Your task to perform on an android device: open app "Duolingo: language lessons" (install if not already installed) Image 0: 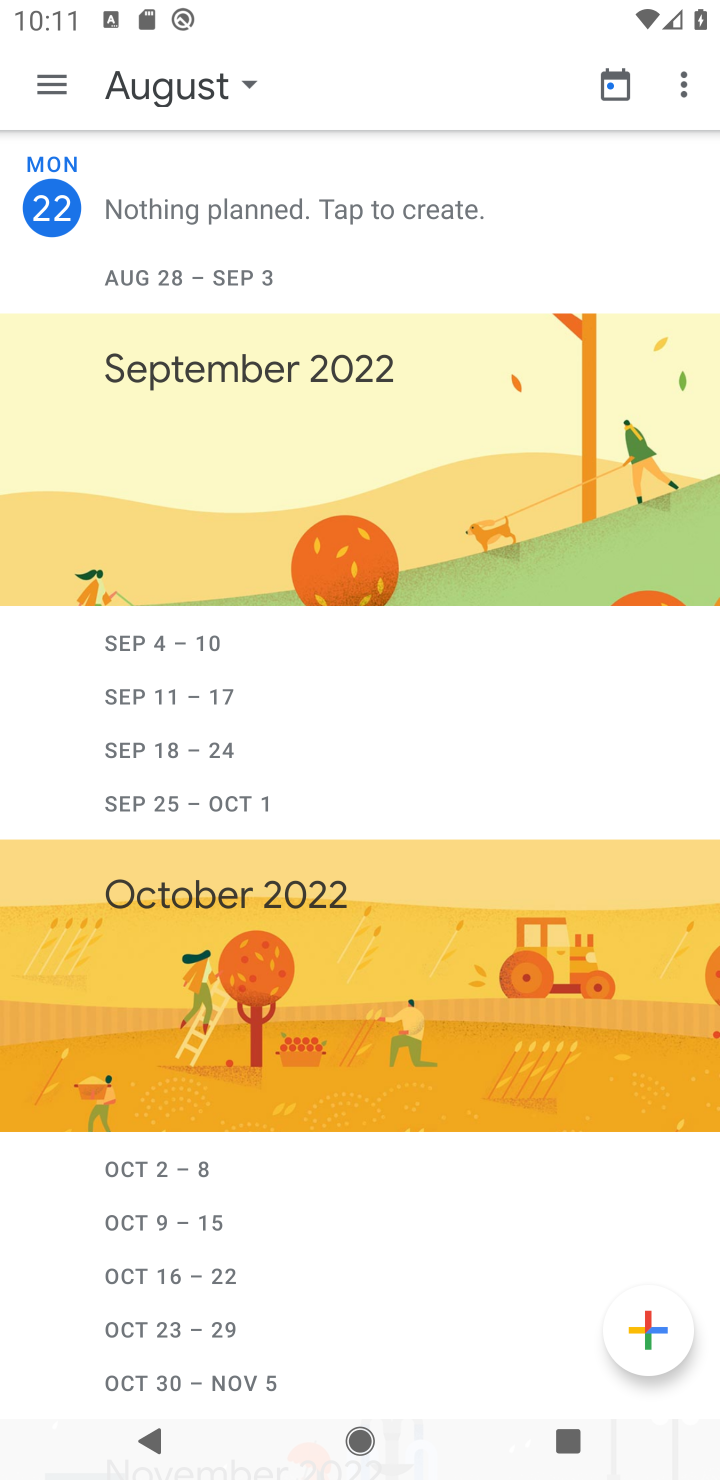
Step 0: press back button
Your task to perform on an android device: open app "Duolingo: language lessons" (install if not already installed) Image 1: 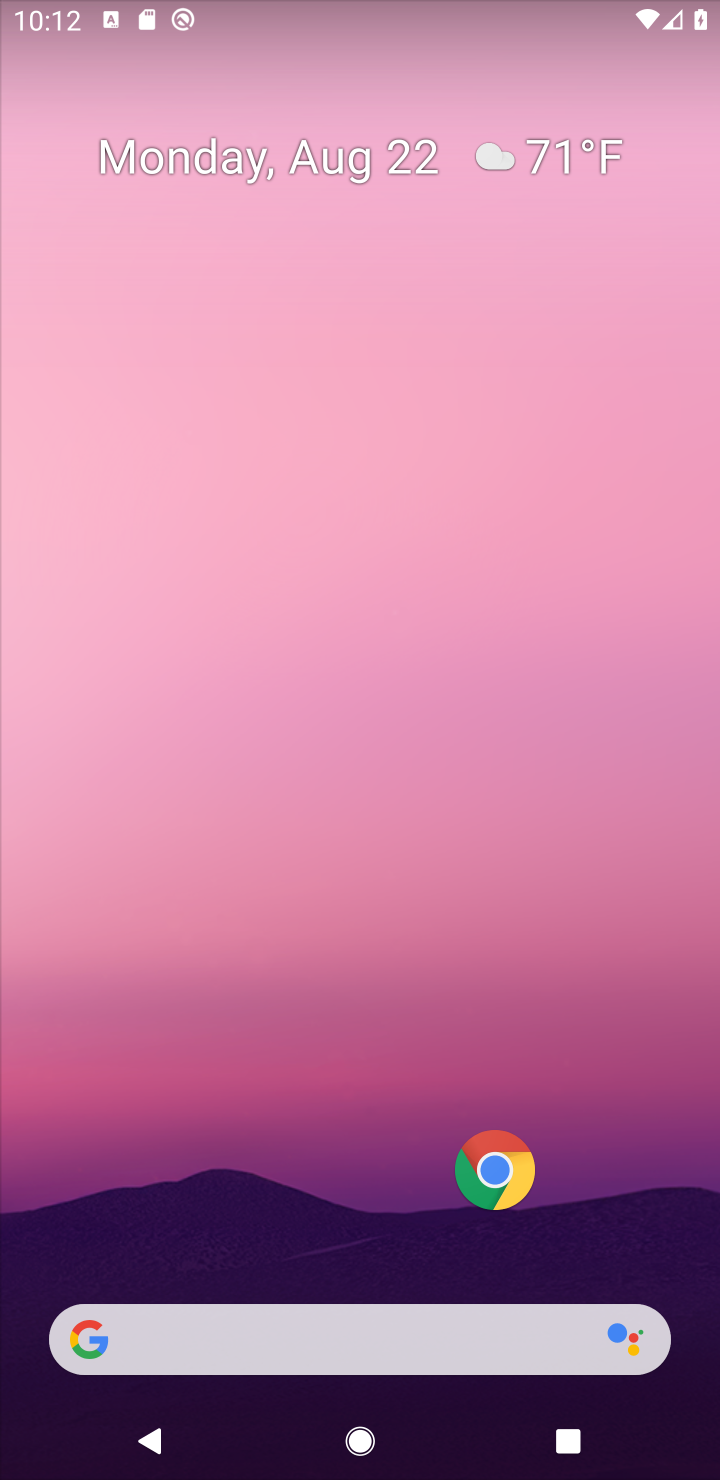
Step 1: drag from (319, 1056) to (513, 188)
Your task to perform on an android device: open app "Duolingo: language lessons" (install if not already installed) Image 2: 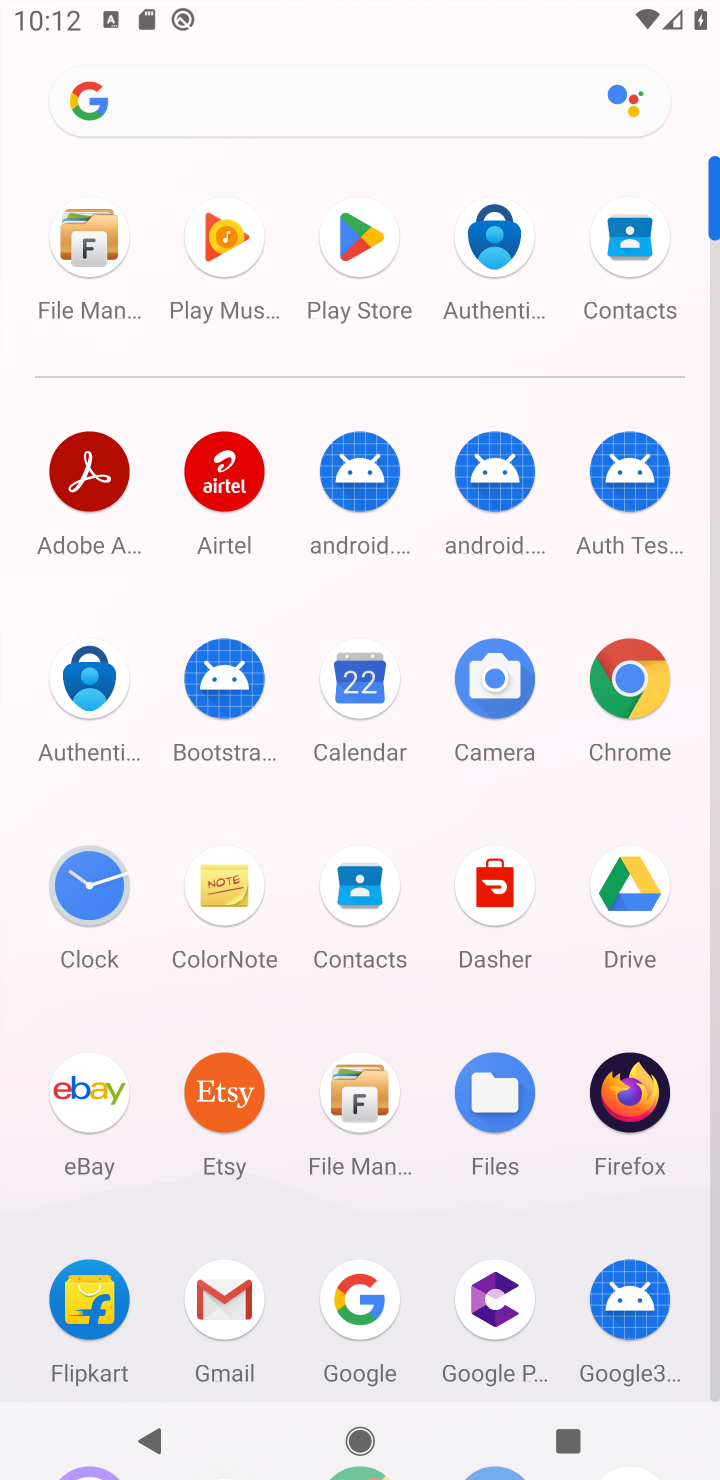
Step 2: click (357, 229)
Your task to perform on an android device: open app "Duolingo: language lessons" (install if not already installed) Image 3: 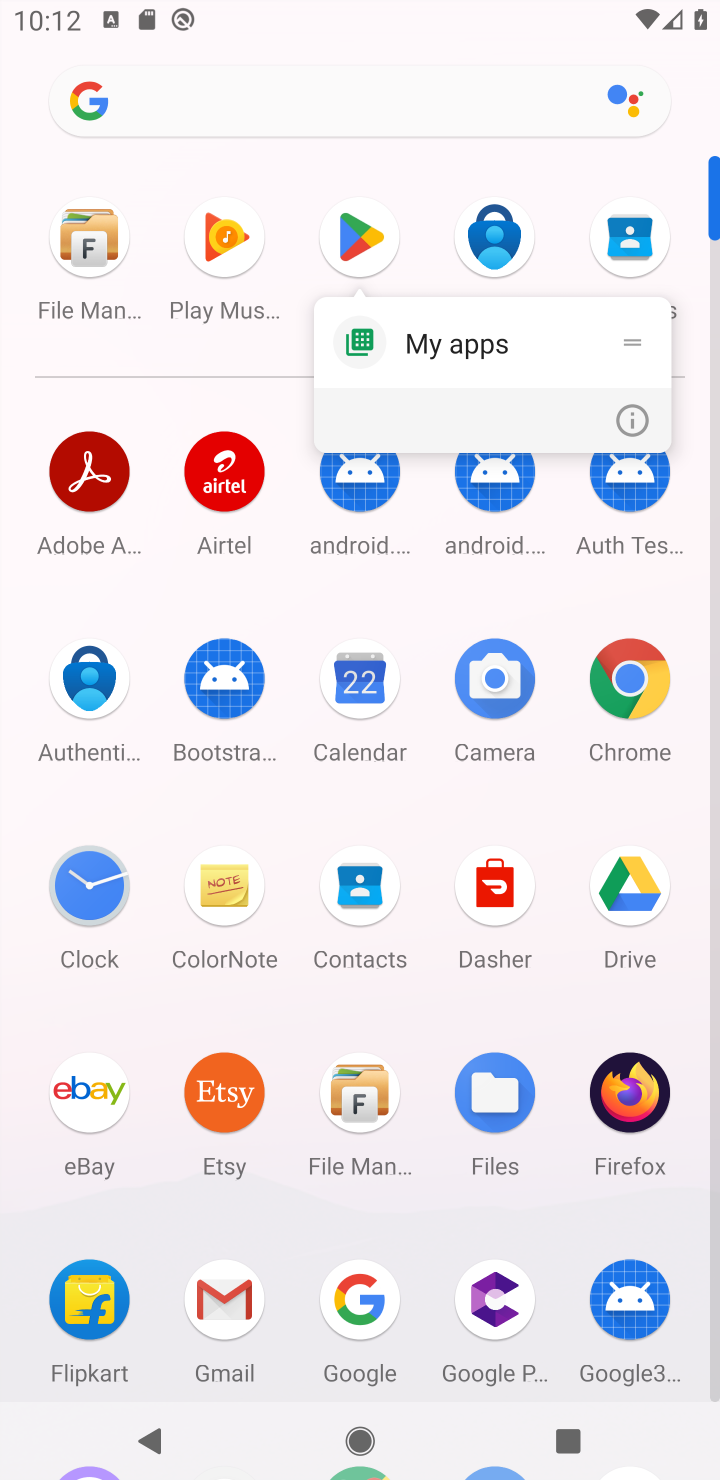
Step 3: click (373, 250)
Your task to perform on an android device: open app "Duolingo: language lessons" (install if not already installed) Image 4: 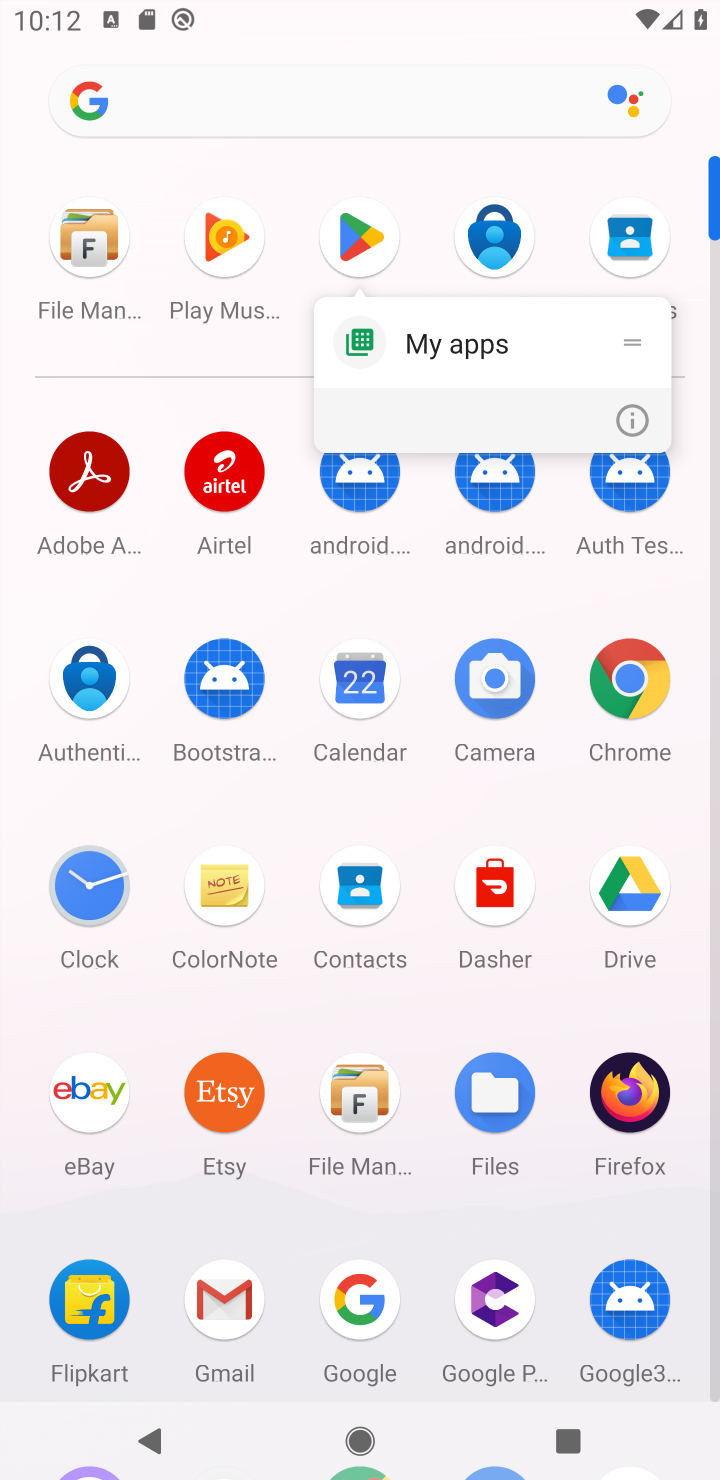
Step 4: click (379, 219)
Your task to perform on an android device: open app "Duolingo: language lessons" (install if not already installed) Image 5: 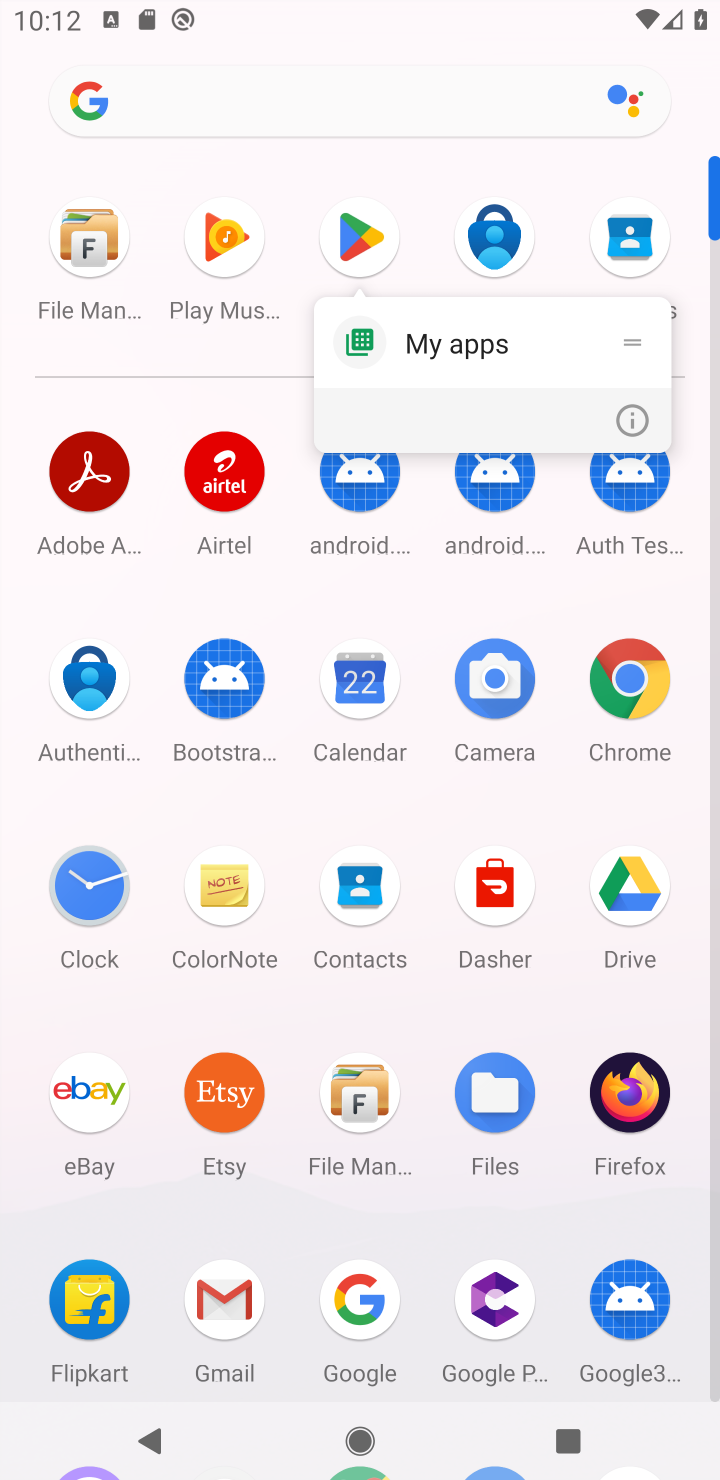
Step 5: click (375, 236)
Your task to perform on an android device: open app "Duolingo: language lessons" (install if not already installed) Image 6: 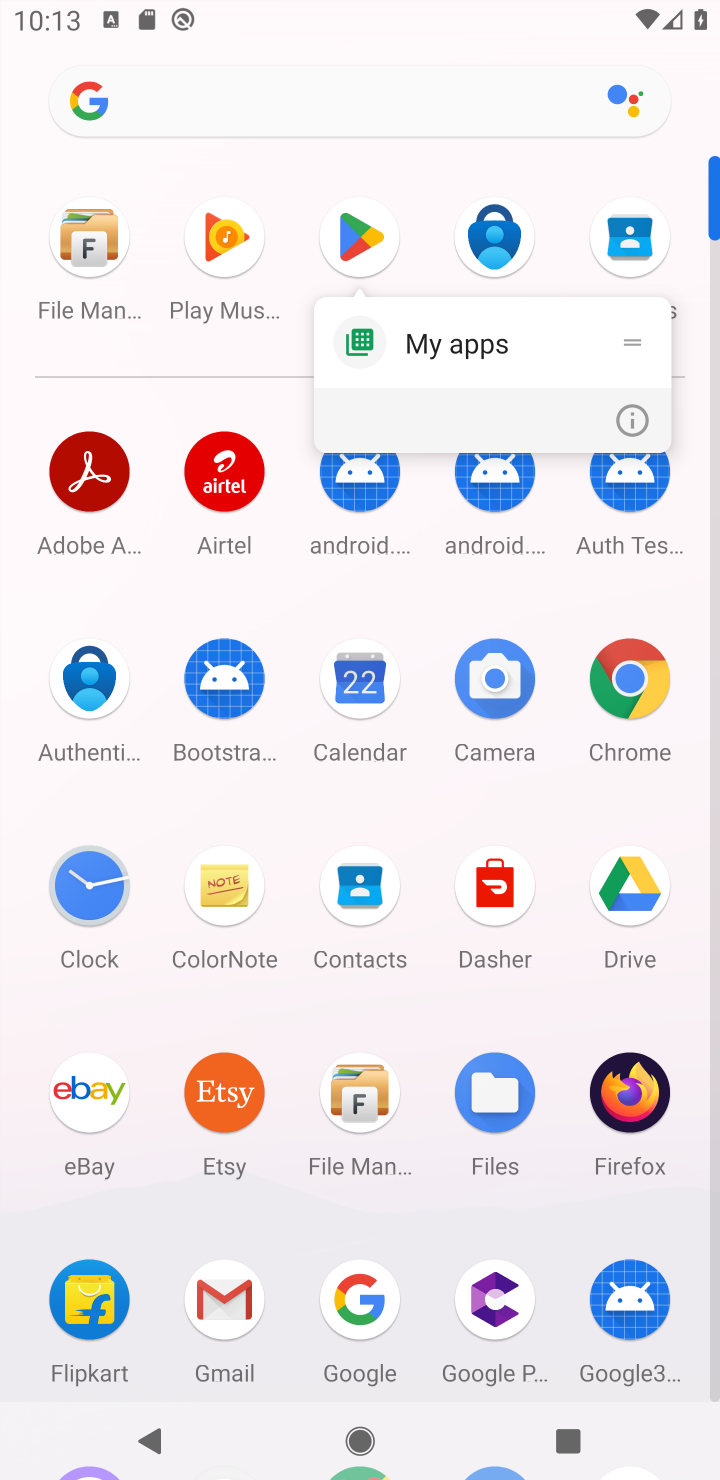
Step 6: click (386, 235)
Your task to perform on an android device: open app "Duolingo: language lessons" (install if not already installed) Image 7: 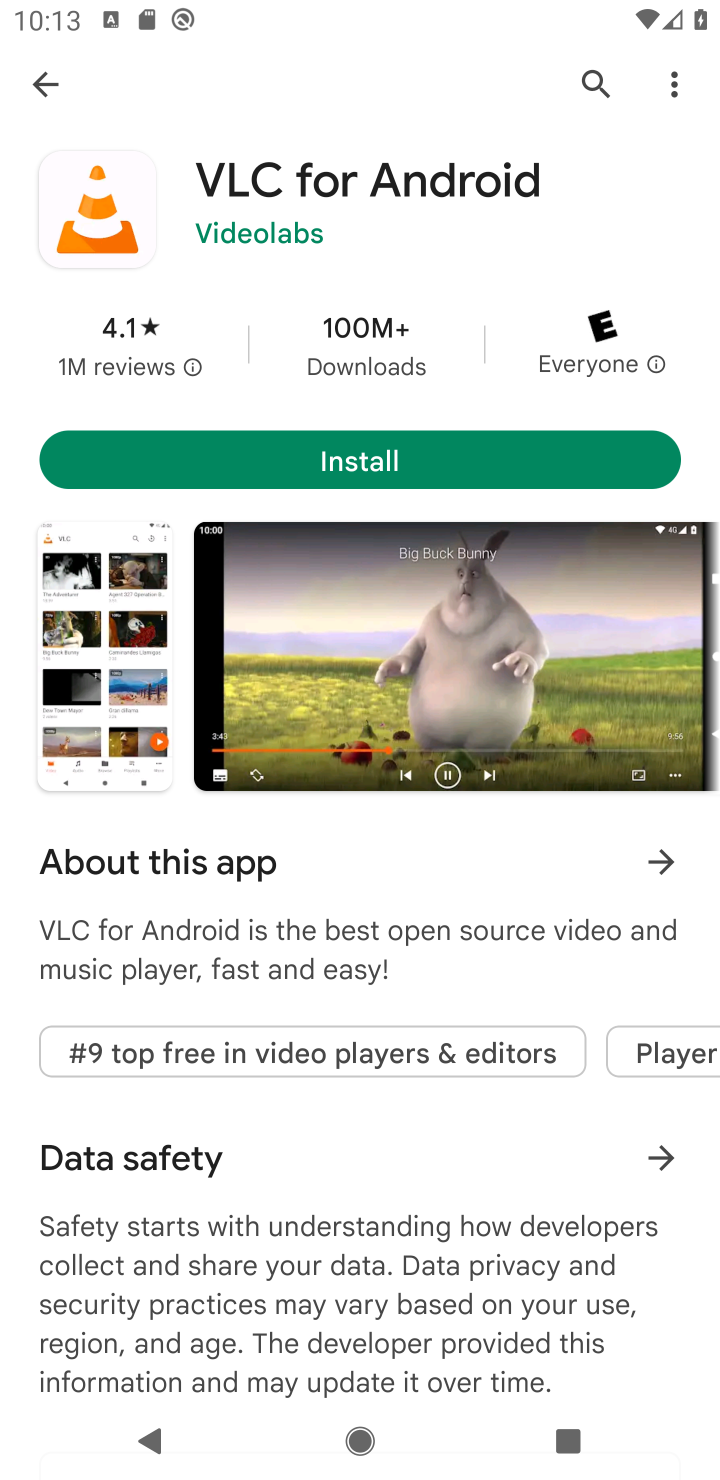
Step 7: click (596, 83)
Your task to perform on an android device: open app "Duolingo: language lessons" (install if not already installed) Image 8: 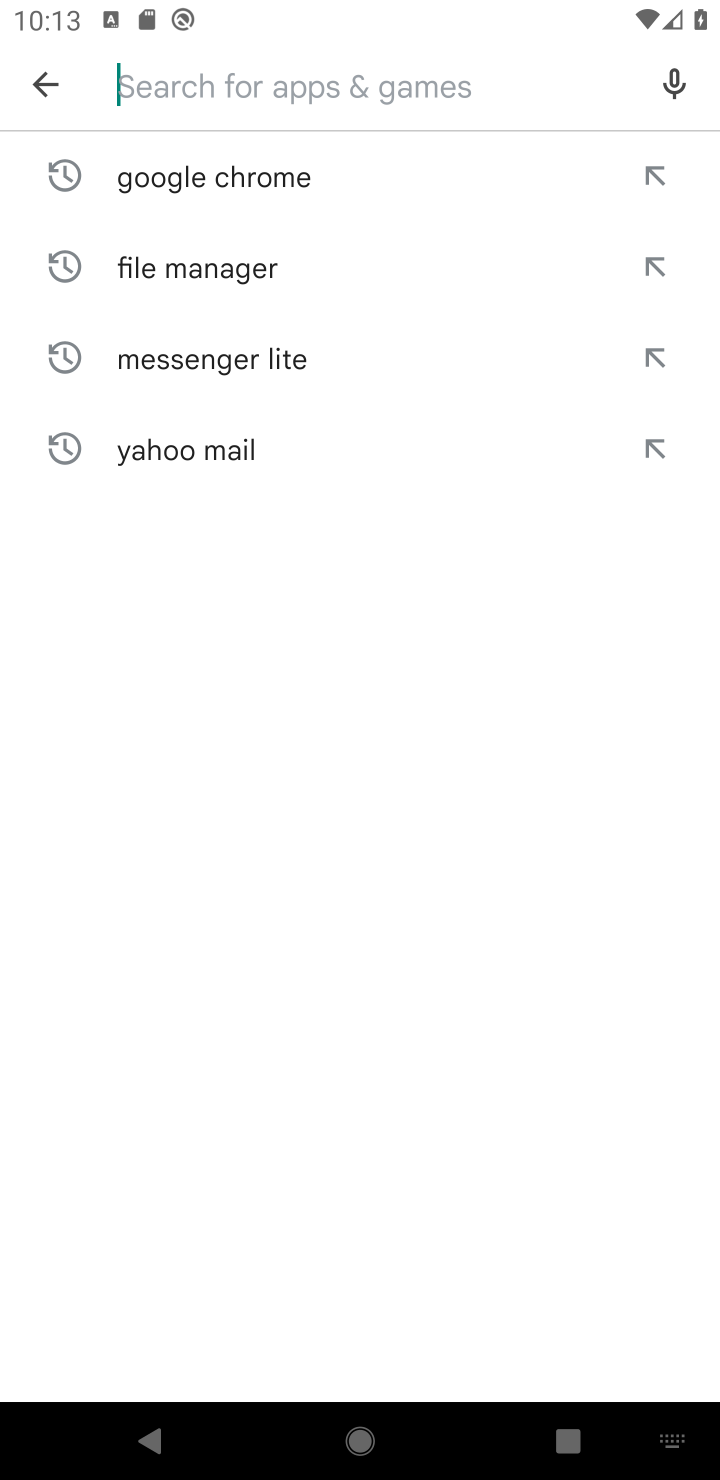
Step 8: click (176, 82)
Your task to perform on an android device: open app "Duolingo: language lessons" (install if not already installed) Image 9: 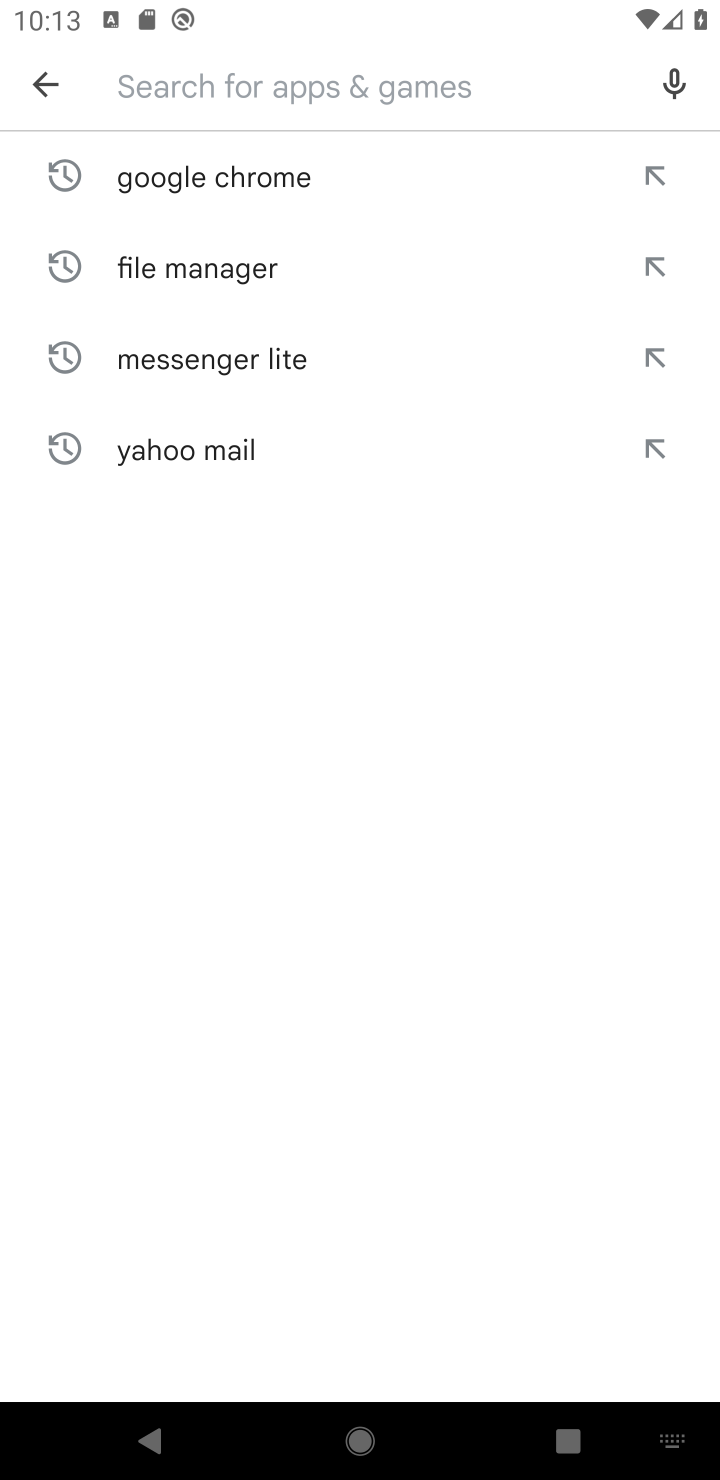
Step 9: type "Duolingo: language lessons"
Your task to perform on an android device: open app "Duolingo: language lessons" (install if not already installed) Image 10: 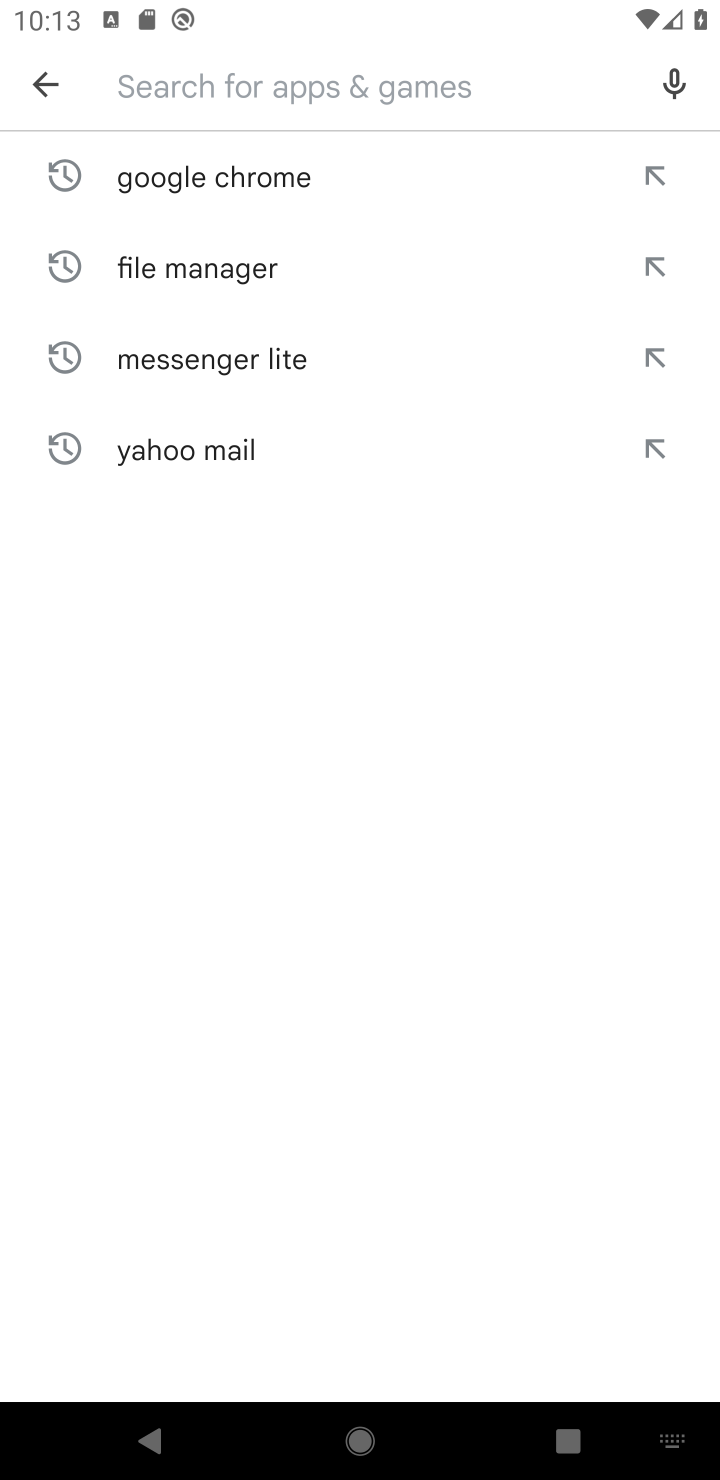
Step 10: click (201, 911)
Your task to perform on an android device: open app "Duolingo: language lessons" (install if not already installed) Image 11: 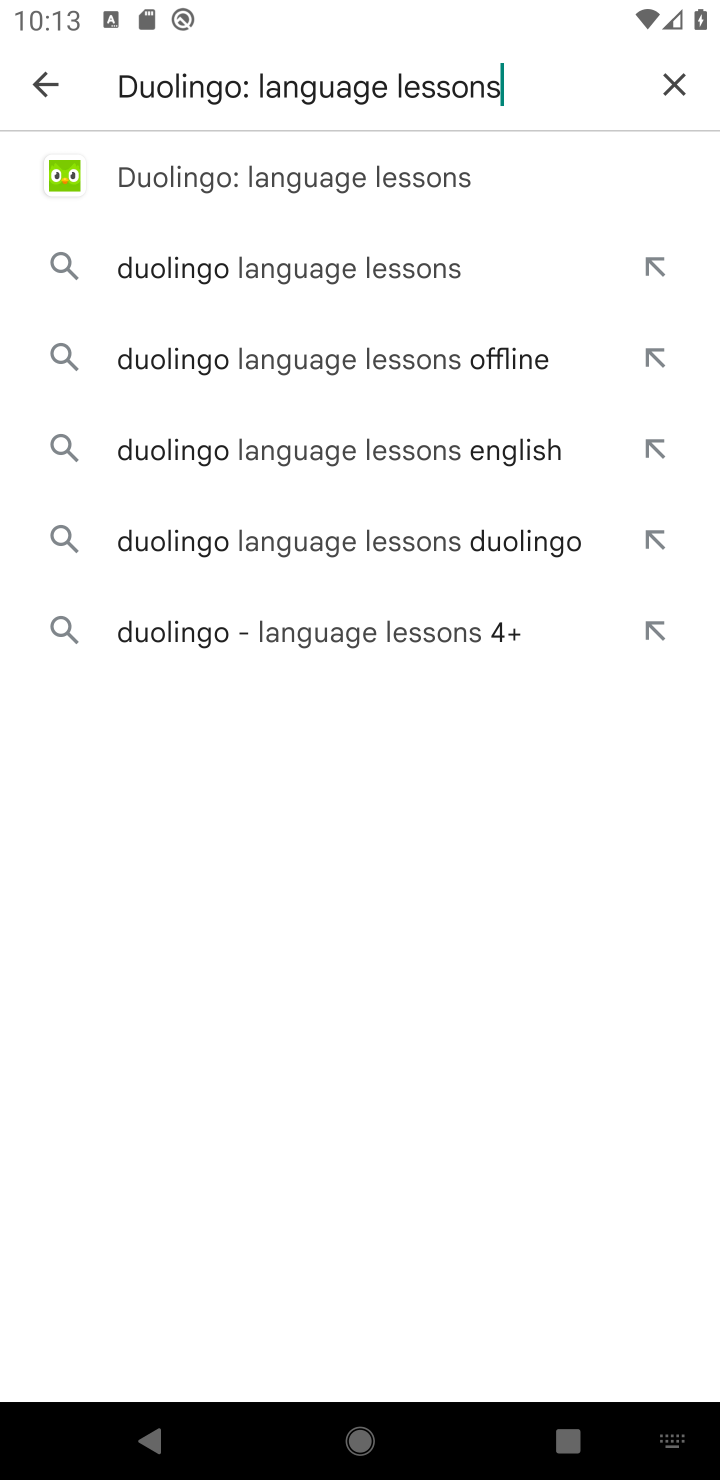
Step 11: click (336, 187)
Your task to perform on an android device: open app "Duolingo: language lessons" (install if not already installed) Image 12: 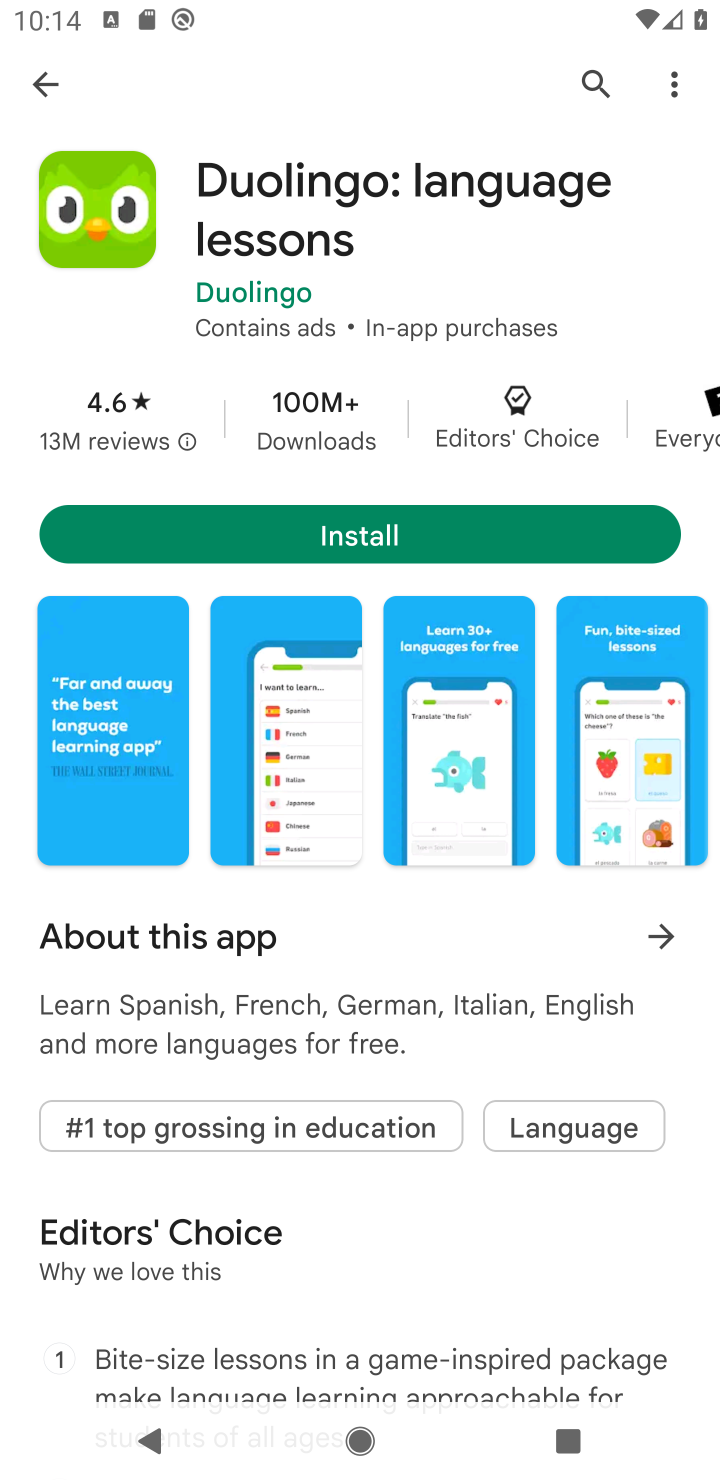
Step 12: click (384, 528)
Your task to perform on an android device: open app "Duolingo: language lessons" (install if not already installed) Image 13: 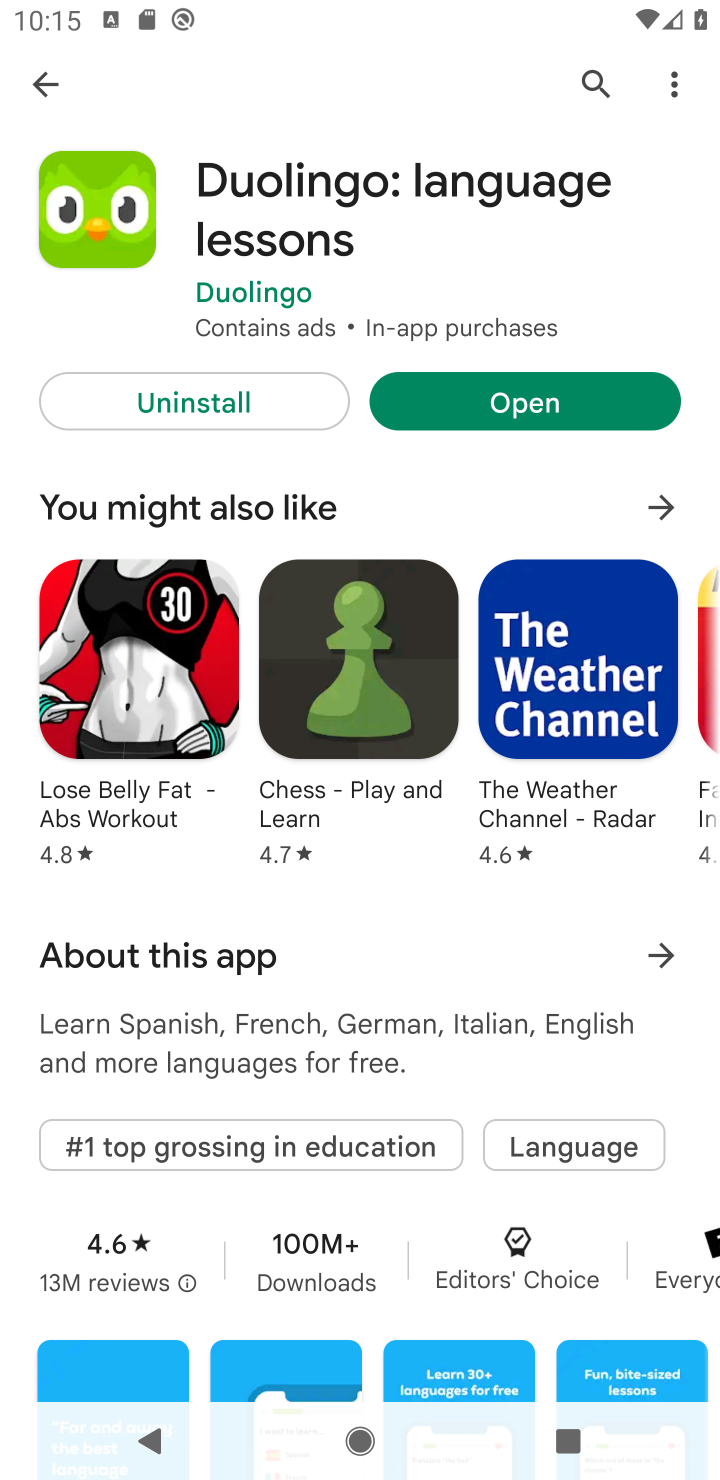
Step 13: click (543, 412)
Your task to perform on an android device: open app "Duolingo: language lessons" (install if not already installed) Image 14: 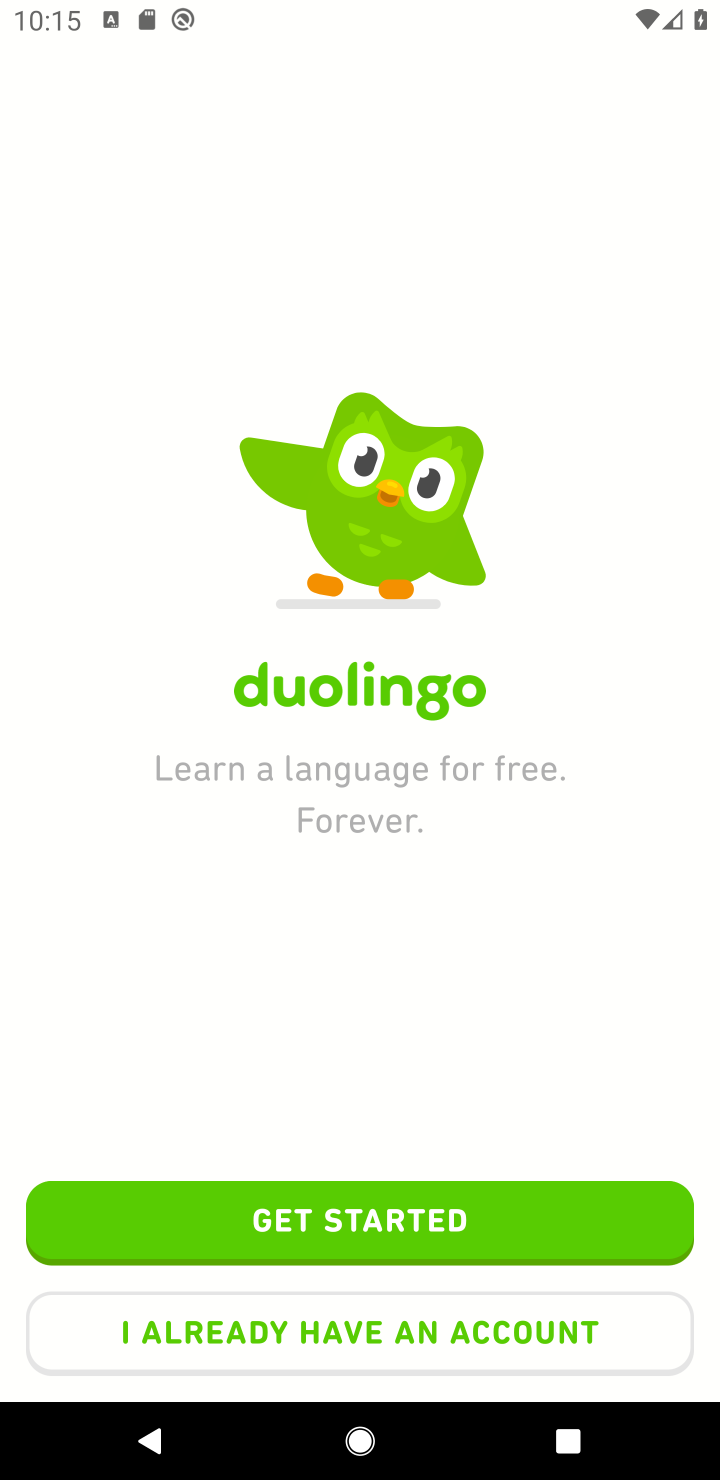
Step 14: task complete